Your task to perform on an android device: Go to accessibility settings Image 0: 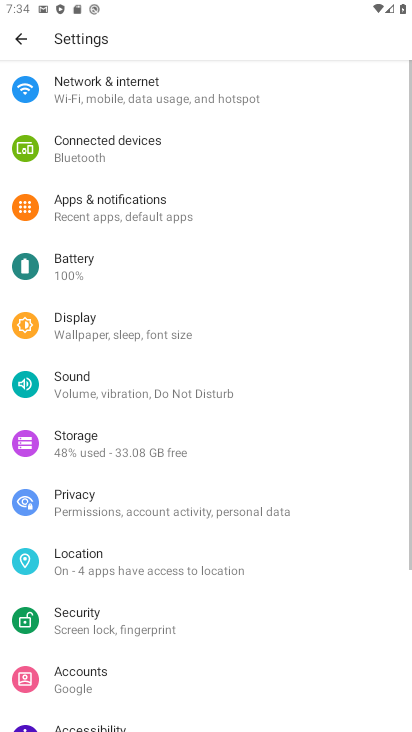
Step 0: drag from (287, 660) to (284, 523)
Your task to perform on an android device: Go to accessibility settings Image 1: 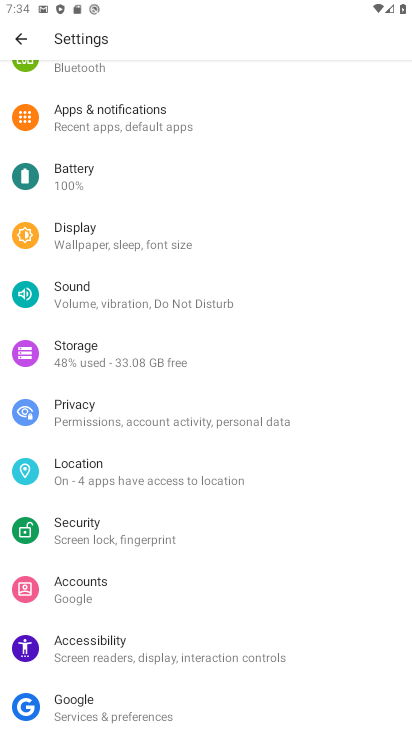
Step 1: click (75, 645)
Your task to perform on an android device: Go to accessibility settings Image 2: 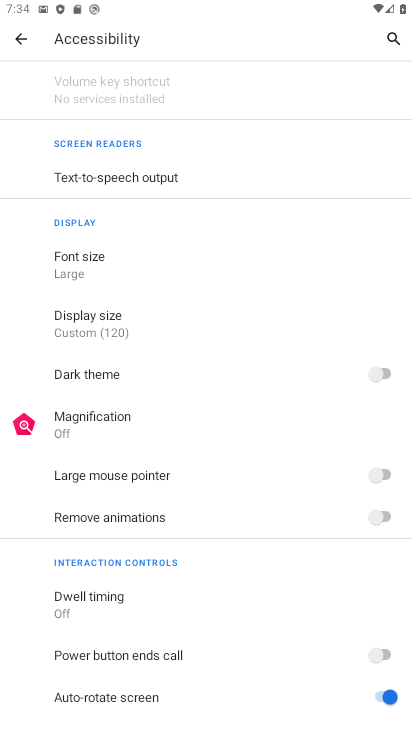
Step 2: task complete